Your task to perform on an android device: read, delete, or share a saved page in the chrome app Image 0: 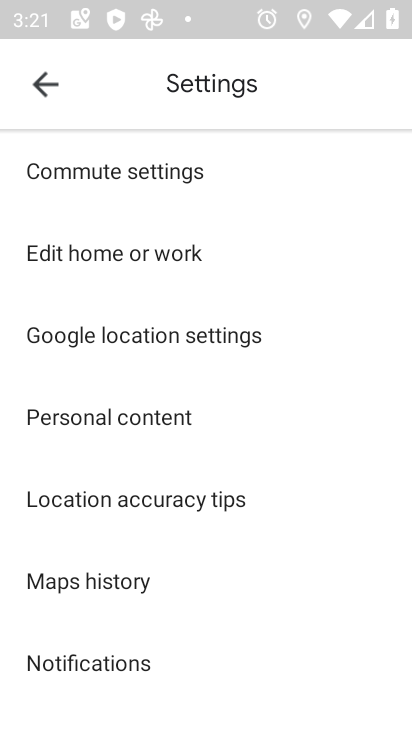
Step 0: press home button
Your task to perform on an android device: read, delete, or share a saved page in the chrome app Image 1: 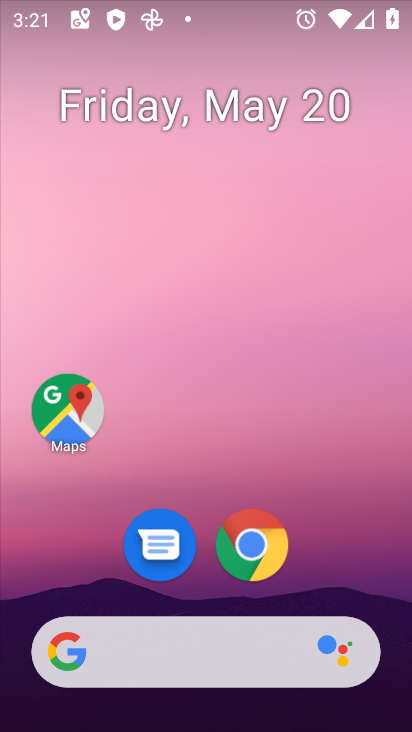
Step 1: click (269, 552)
Your task to perform on an android device: read, delete, or share a saved page in the chrome app Image 2: 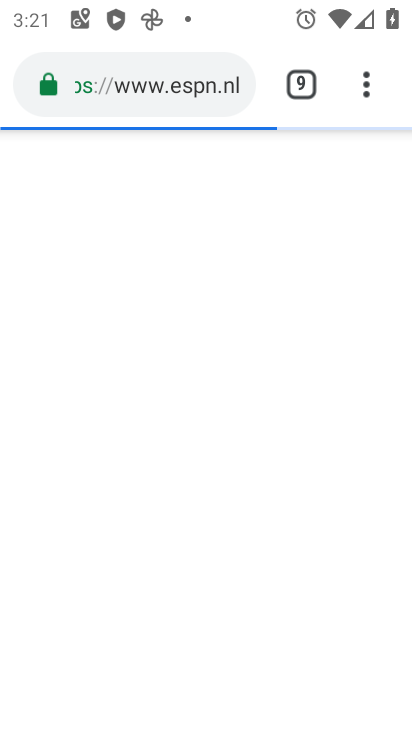
Step 2: click (378, 81)
Your task to perform on an android device: read, delete, or share a saved page in the chrome app Image 3: 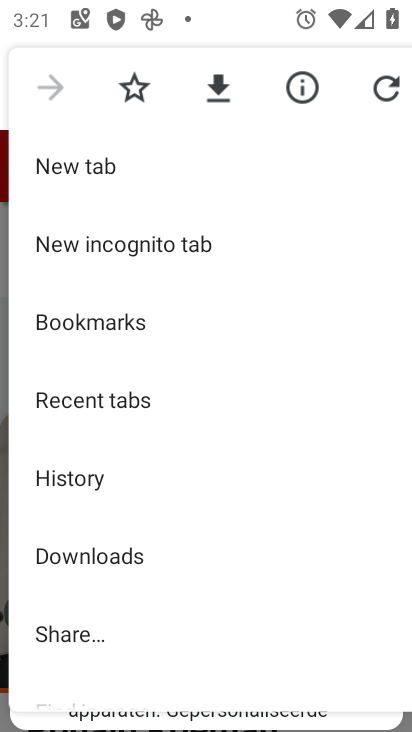
Step 3: click (73, 548)
Your task to perform on an android device: read, delete, or share a saved page in the chrome app Image 4: 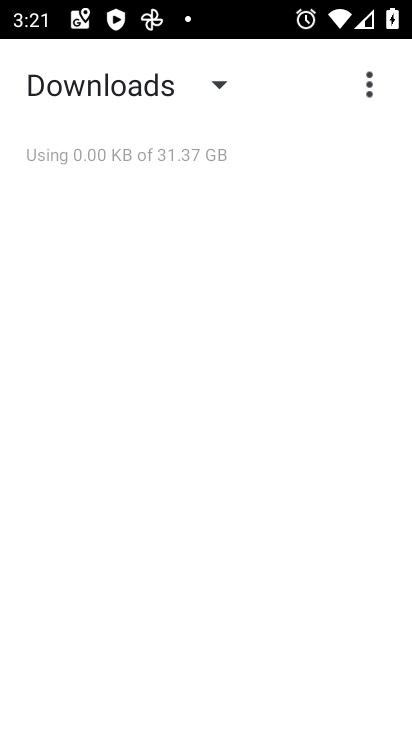
Step 4: click (218, 81)
Your task to perform on an android device: read, delete, or share a saved page in the chrome app Image 5: 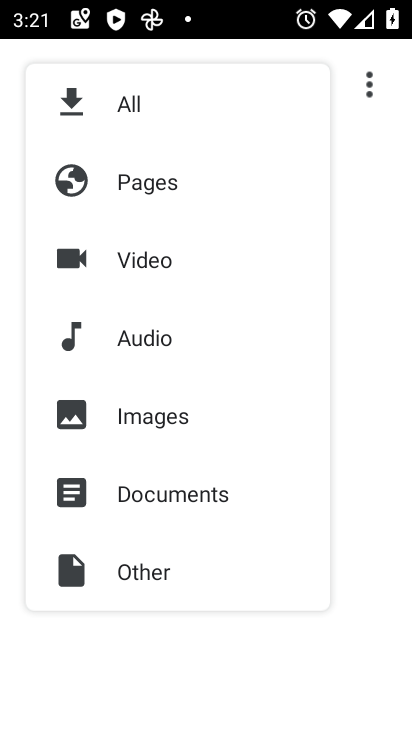
Step 5: click (146, 179)
Your task to perform on an android device: read, delete, or share a saved page in the chrome app Image 6: 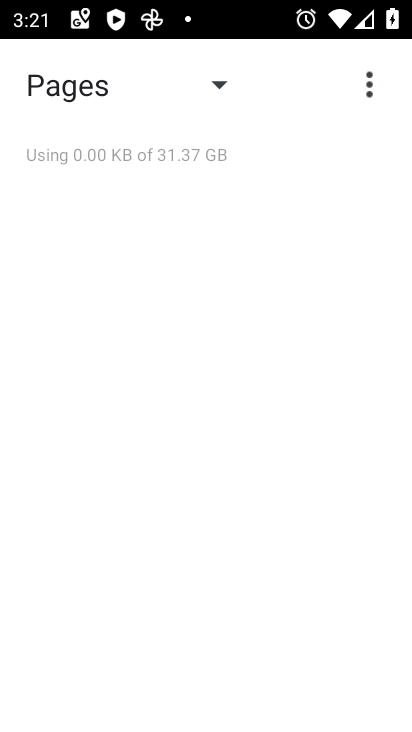
Step 6: task complete